Your task to perform on an android device: change the clock display to analog Image 0: 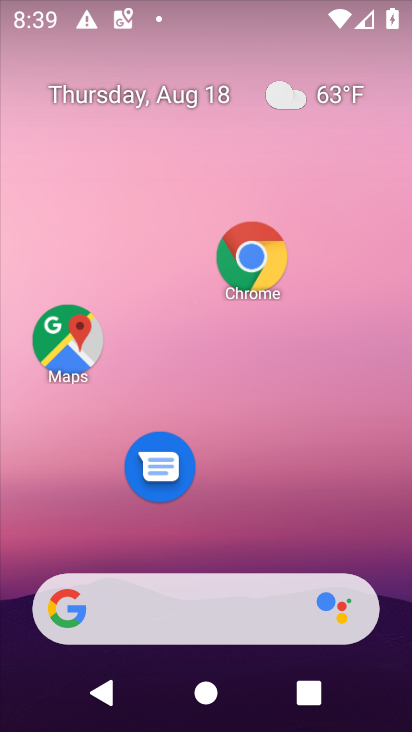
Step 0: drag from (353, 502) to (280, 121)
Your task to perform on an android device: change the clock display to analog Image 1: 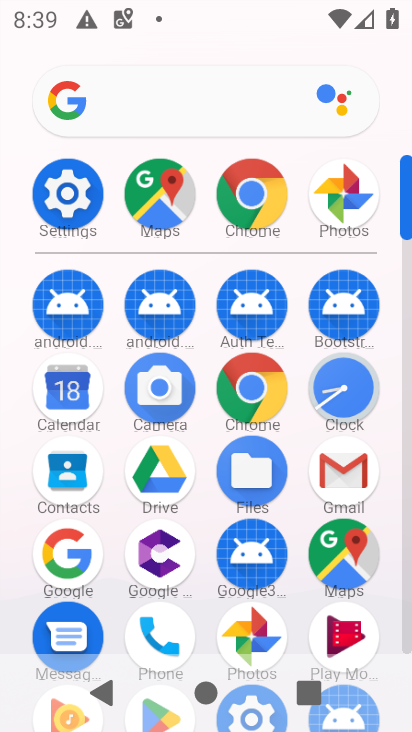
Step 1: click (271, 395)
Your task to perform on an android device: change the clock display to analog Image 2: 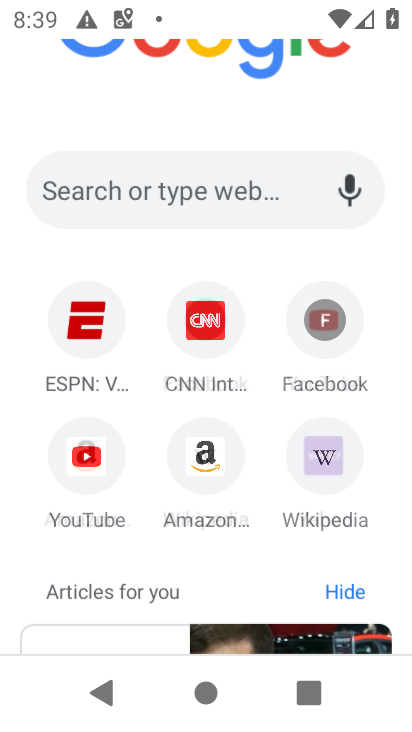
Step 2: task complete